Your task to perform on an android device: Open Youtube and go to "Your channel" Image 0: 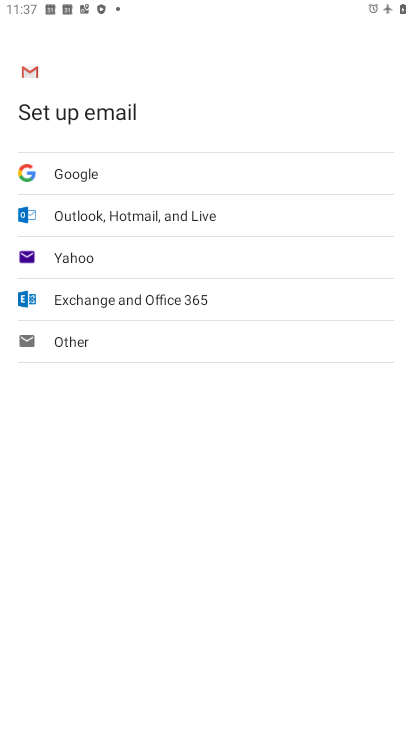
Step 0: press home button
Your task to perform on an android device: Open Youtube and go to "Your channel" Image 1: 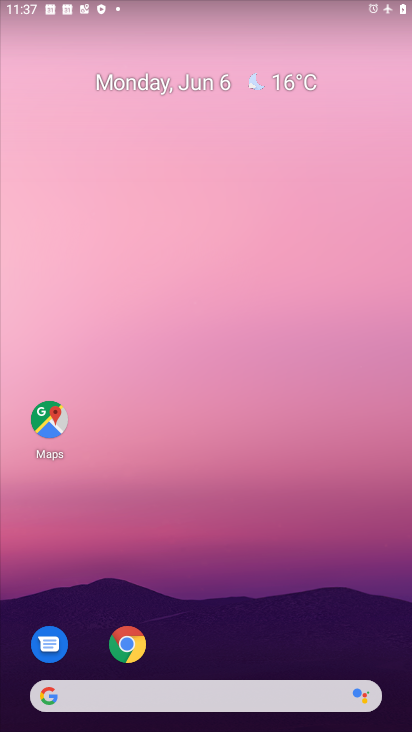
Step 1: drag from (245, 603) to (330, 44)
Your task to perform on an android device: Open Youtube and go to "Your channel" Image 2: 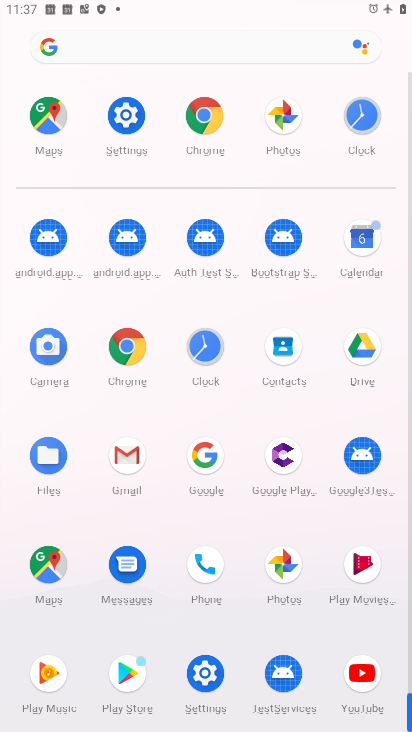
Step 2: click (360, 680)
Your task to perform on an android device: Open Youtube and go to "Your channel" Image 3: 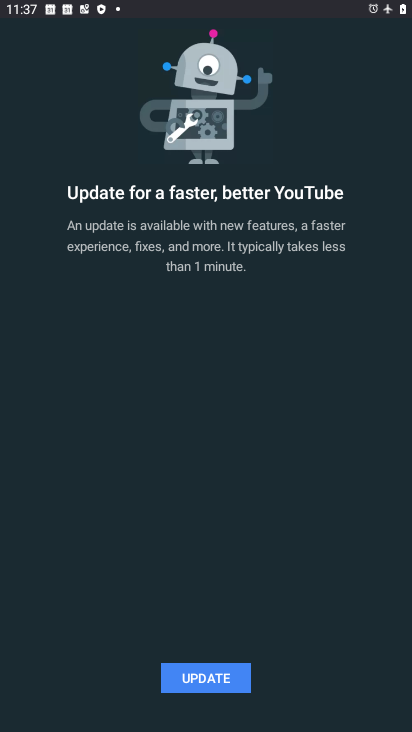
Step 3: click (236, 667)
Your task to perform on an android device: Open Youtube and go to "Your channel" Image 4: 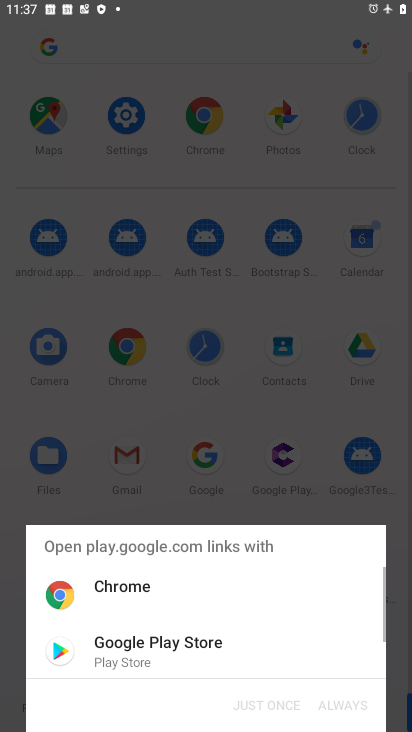
Step 4: click (198, 653)
Your task to perform on an android device: Open Youtube and go to "Your channel" Image 5: 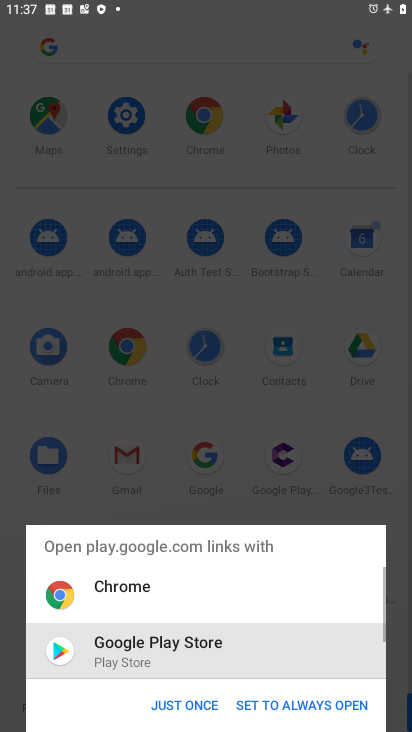
Step 5: click (192, 698)
Your task to perform on an android device: Open Youtube and go to "Your channel" Image 6: 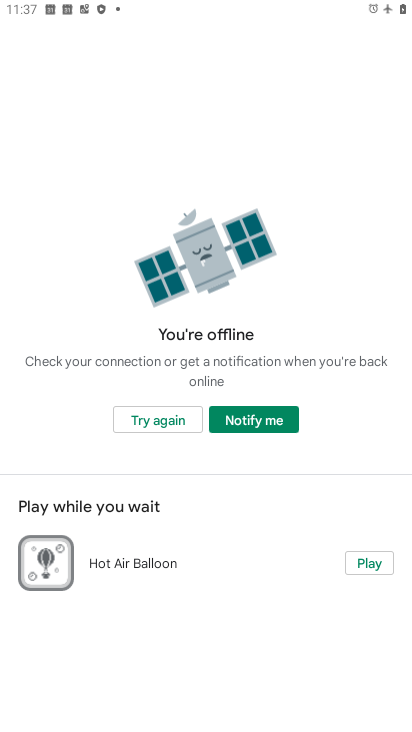
Step 6: task complete